Your task to perform on an android device: Open Android settings Image 0: 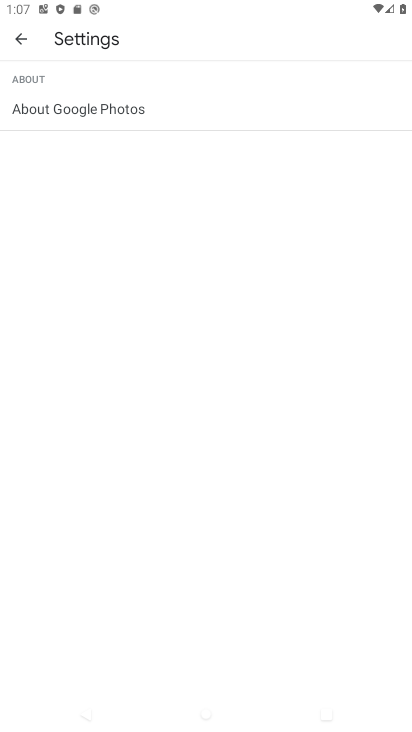
Step 0: press home button
Your task to perform on an android device: Open Android settings Image 1: 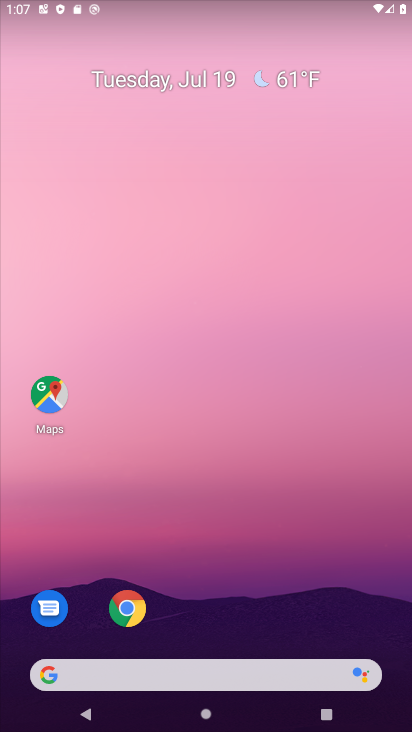
Step 1: drag from (276, 541) to (345, 36)
Your task to perform on an android device: Open Android settings Image 2: 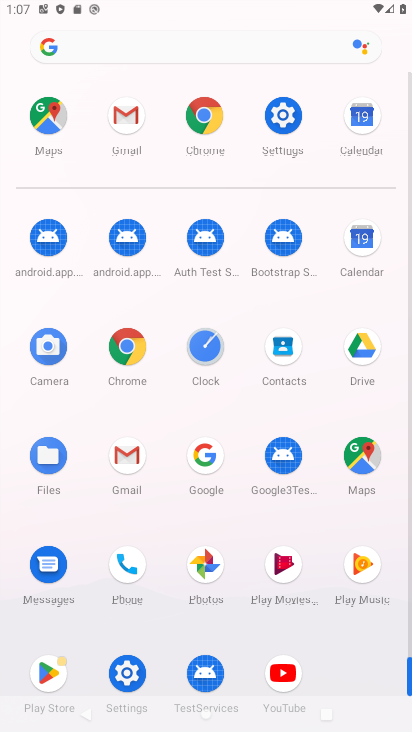
Step 2: click (293, 120)
Your task to perform on an android device: Open Android settings Image 3: 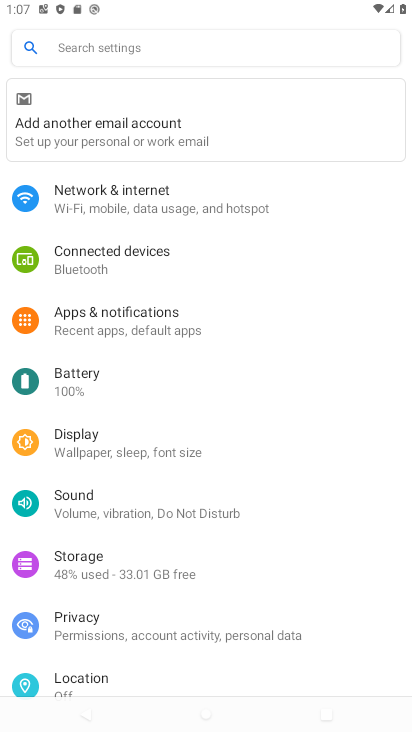
Step 3: task complete